Your task to perform on an android device: toggle sleep mode Image 0: 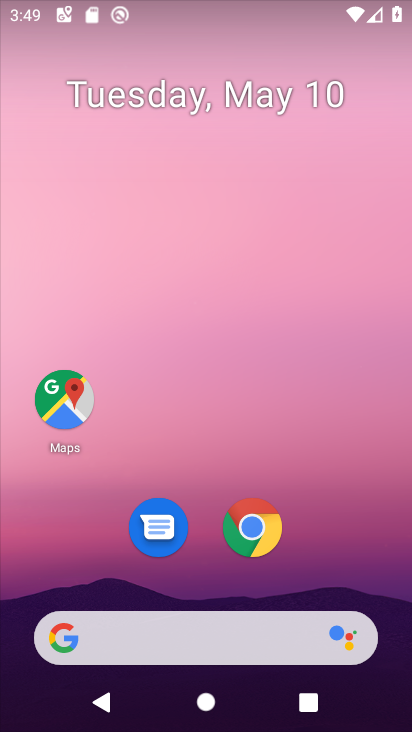
Step 0: drag from (394, 616) to (376, 213)
Your task to perform on an android device: toggle sleep mode Image 1: 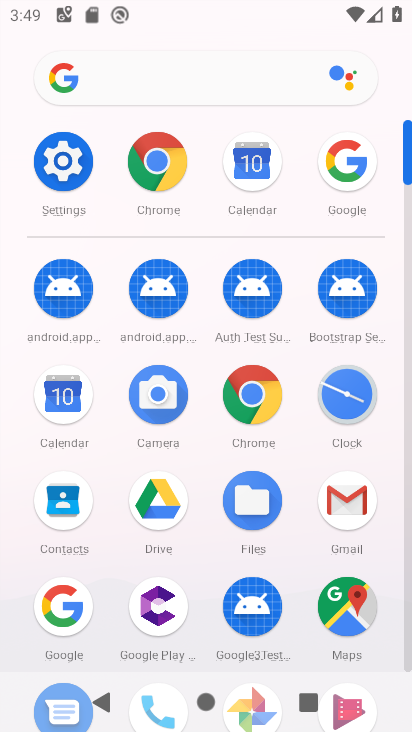
Step 1: click (66, 159)
Your task to perform on an android device: toggle sleep mode Image 2: 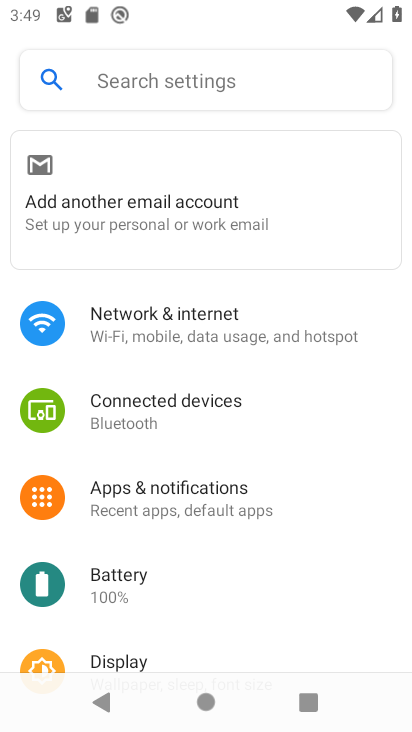
Step 2: drag from (325, 596) to (350, 208)
Your task to perform on an android device: toggle sleep mode Image 3: 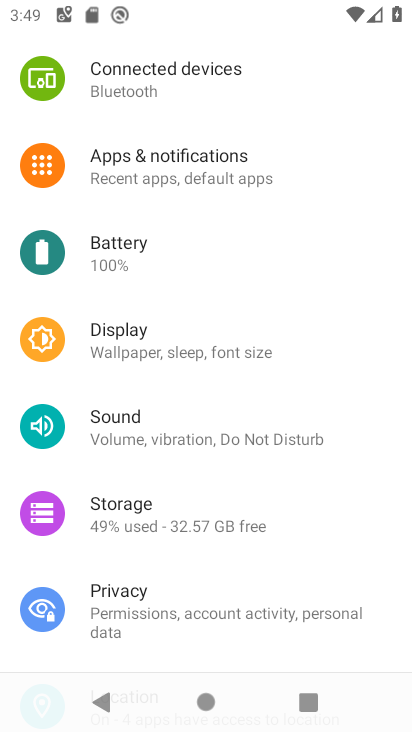
Step 3: click (118, 342)
Your task to perform on an android device: toggle sleep mode Image 4: 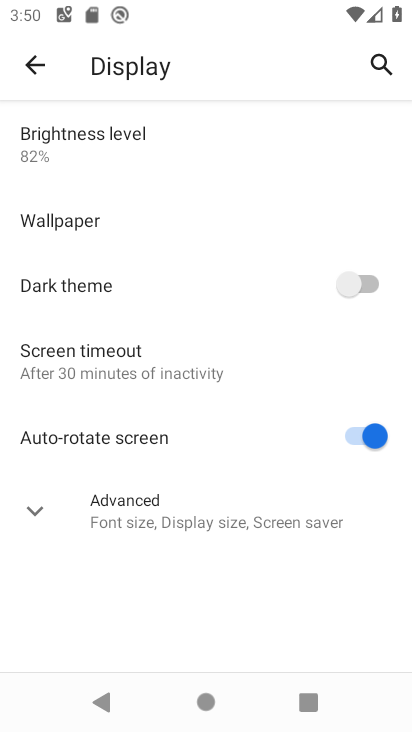
Step 4: click (92, 363)
Your task to perform on an android device: toggle sleep mode Image 5: 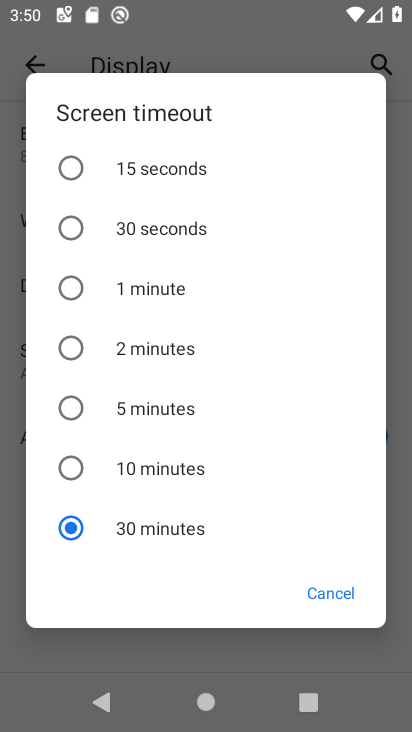
Step 5: click (67, 398)
Your task to perform on an android device: toggle sleep mode Image 6: 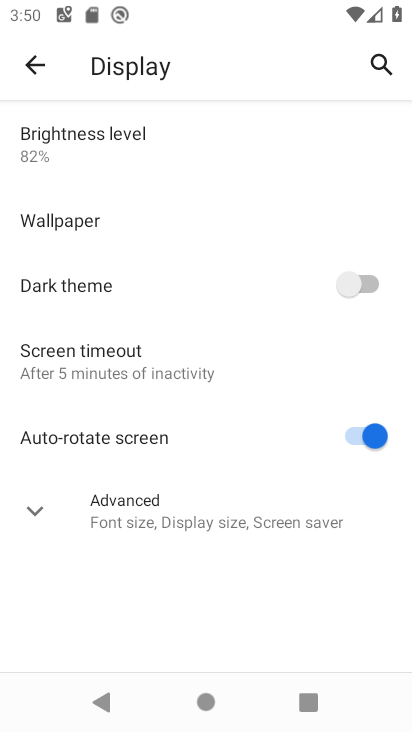
Step 6: task complete